Your task to perform on an android device: Toggle the flashlight Image 0: 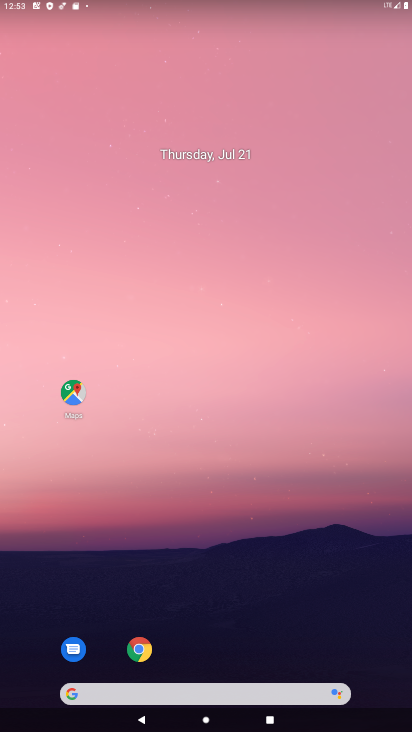
Step 0: drag from (221, 716) to (237, 255)
Your task to perform on an android device: Toggle the flashlight Image 1: 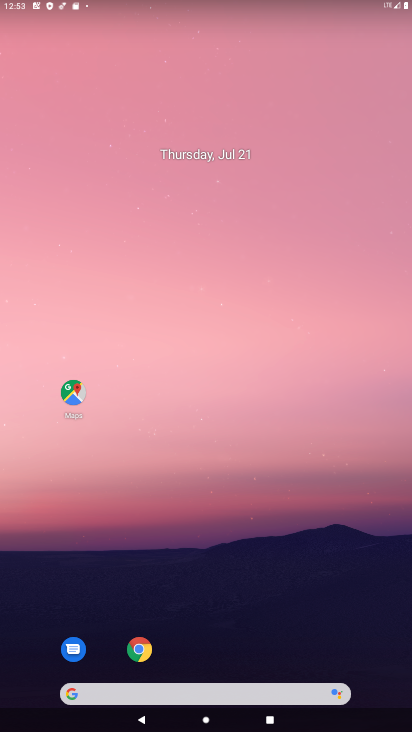
Step 1: drag from (239, 727) to (273, 63)
Your task to perform on an android device: Toggle the flashlight Image 2: 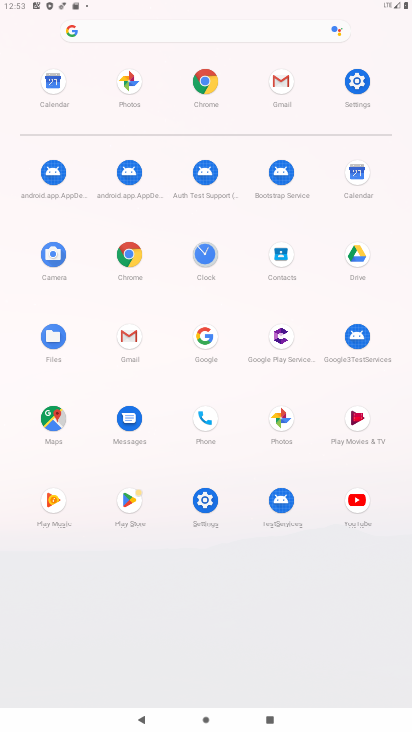
Step 2: click (360, 81)
Your task to perform on an android device: Toggle the flashlight Image 3: 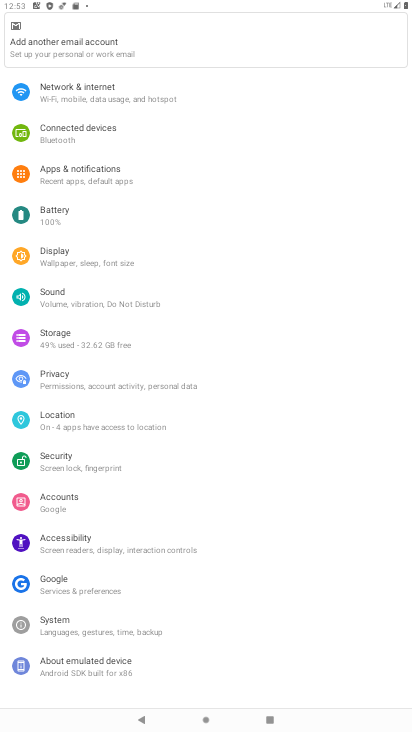
Step 3: task complete